Your task to perform on an android device: turn on showing notifications on the lock screen Image 0: 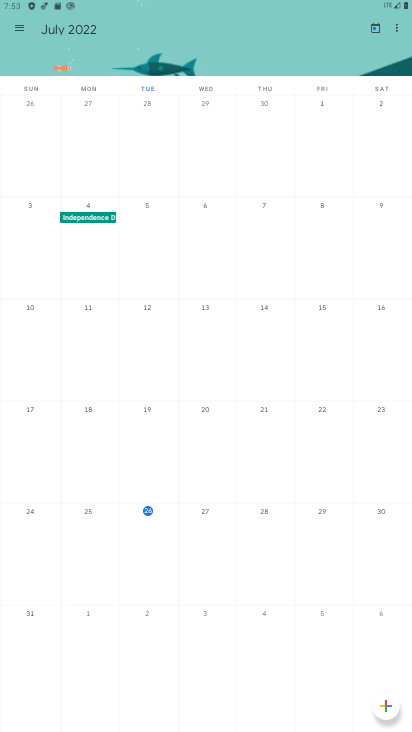
Step 0: press home button
Your task to perform on an android device: turn on showing notifications on the lock screen Image 1: 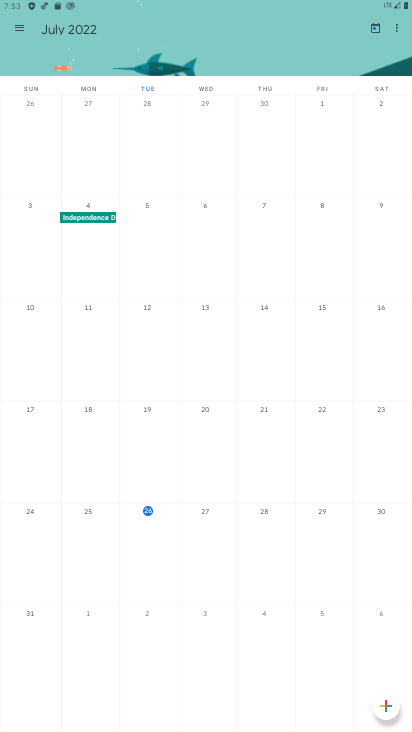
Step 1: drag from (363, 671) to (191, 166)
Your task to perform on an android device: turn on showing notifications on the lock screen Image 2: 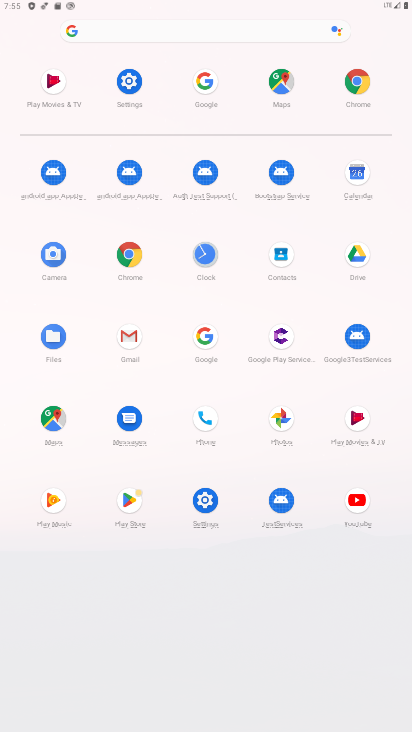
Step 2: click (193, 514)
Your task to perform on an android device: turn on showing notifications on the lock screen Image 3: 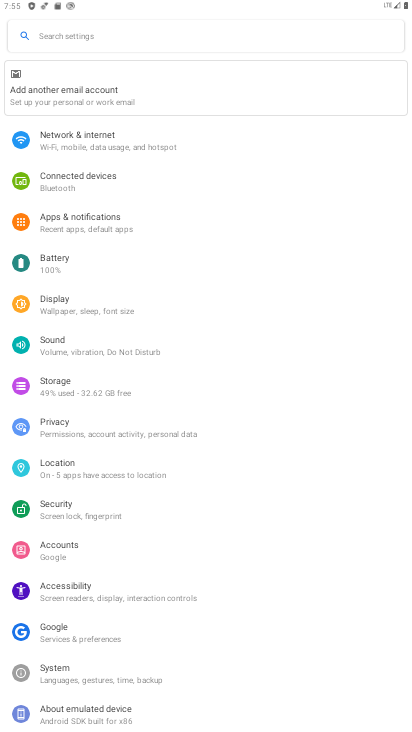
Step 3: click (98, 211)
Your task to perform on an android device: turn on showing notifications on the lock screen Image 4: 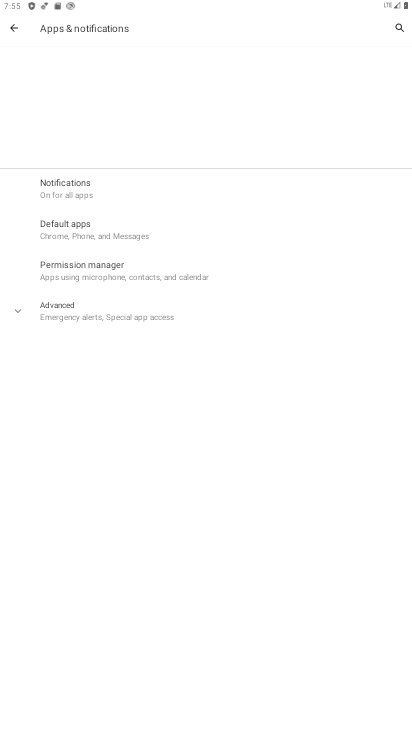
Step 4: click (31, 313)
Your task to perform on an android device: turn on showing notifications on the lock screen Image 5: 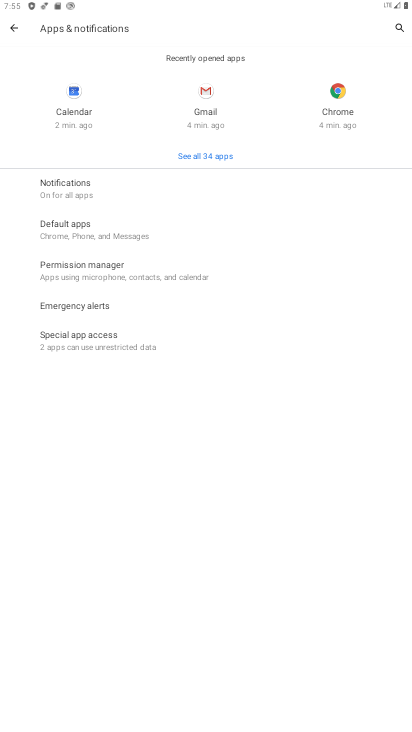
Step 5: click (89, 174)
Your task to perform on an android device: turn on showing notifications on the lock screen Image 6: 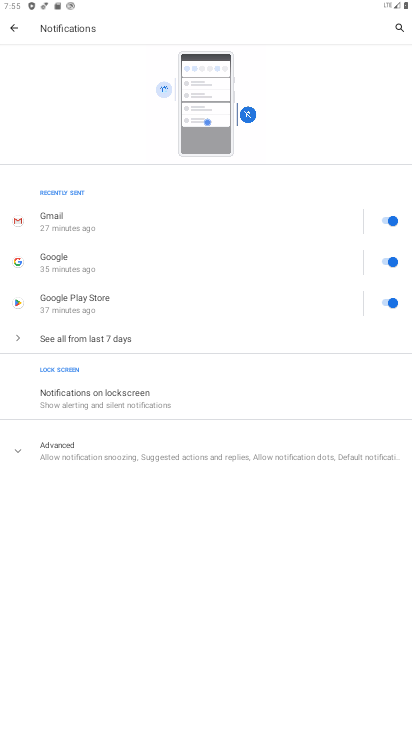
Step 6: click (136, 399)
Your task to perform on an android device: turn on showing notifications on the lock screen Image 7: 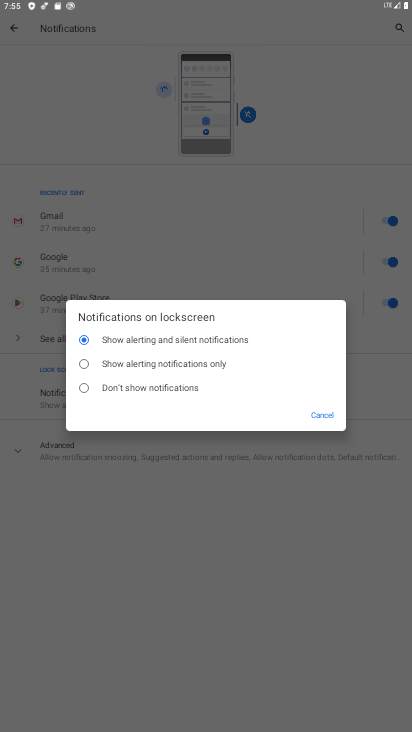
Step 7: click (167, 339)
Your task to perform on an android device: turn on showing notifications on the lock screen Image 8: 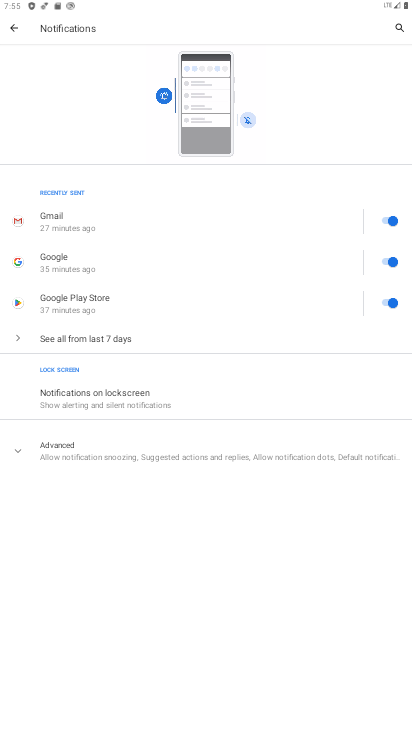
Step 8: task complete